Your task to perform on an android device: turn off javascript in the chrome app Image 0: 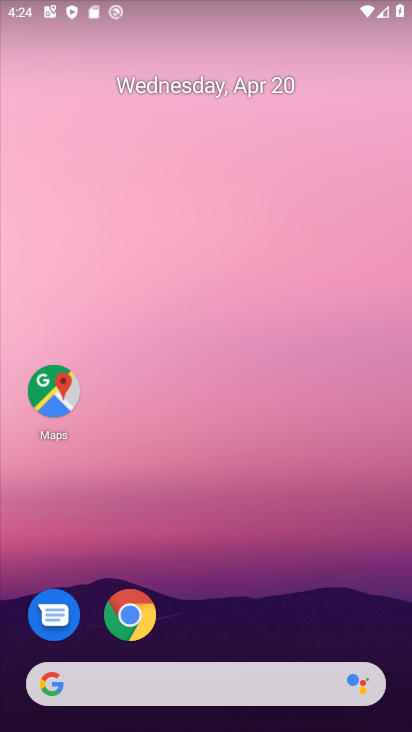
Step 0: click (120, 599)
Your task to perform on an android device: turn off javascript in the chrome app Image 1: 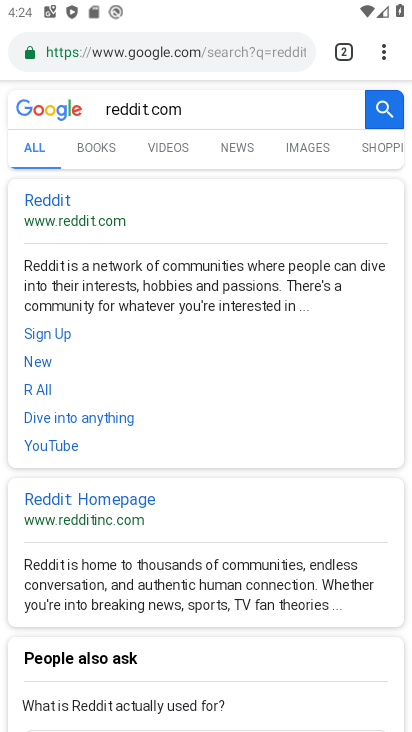
Step 1: click (269, 652)
Your task to perform on an android device: turn off javascript in the chrome app Image 2: 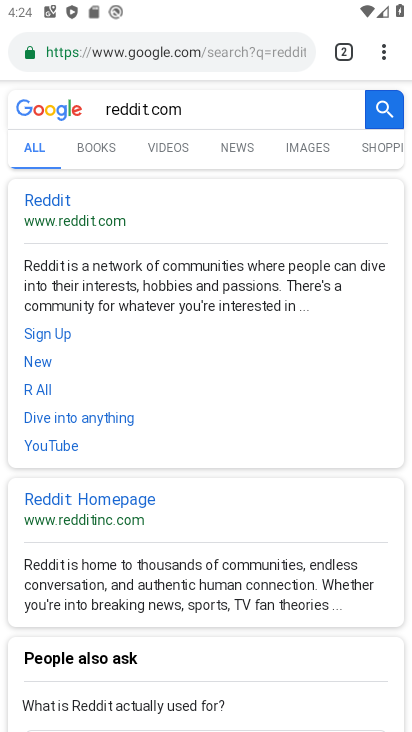
Step 2: click (378, 61)
Your task to perform on an android device: turn off javascript in the chrome app Image 3: 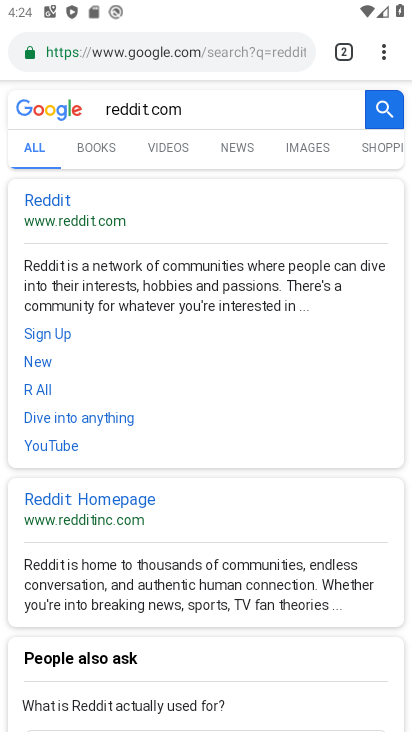
Step 3: click (381, 51)
Your task to perform on an android device: turn off javascript in the chrome app Image 4: 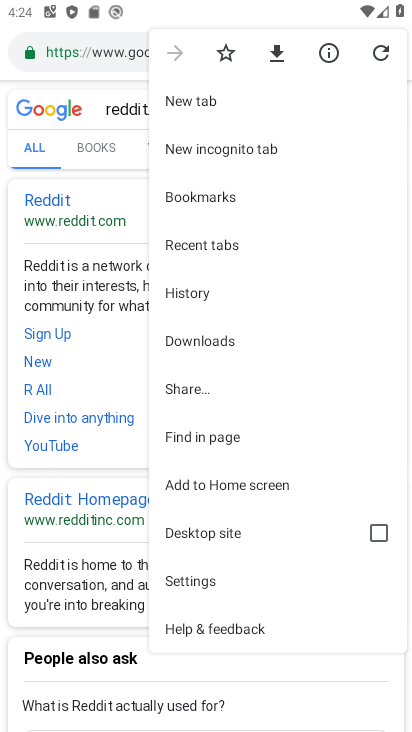
Step 4: click (202, 586)
Your task to perform on an android device: turn off javascript in the chrome app Image 5: 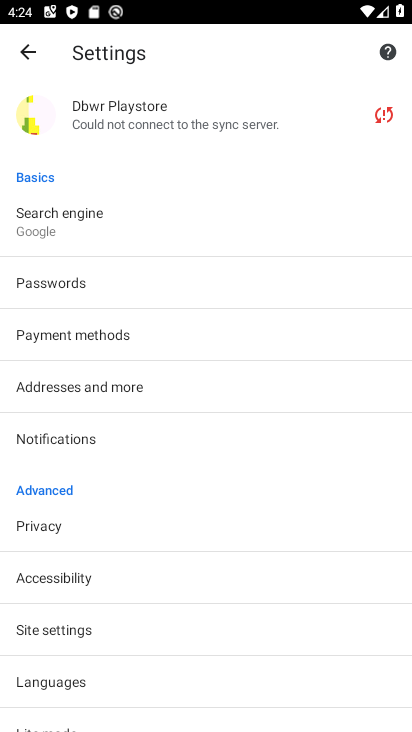
Step 5: drag from (84, 581) to (88, 491)
Your task to perform on an android device: turn off javascript in the chrome app Image 6: 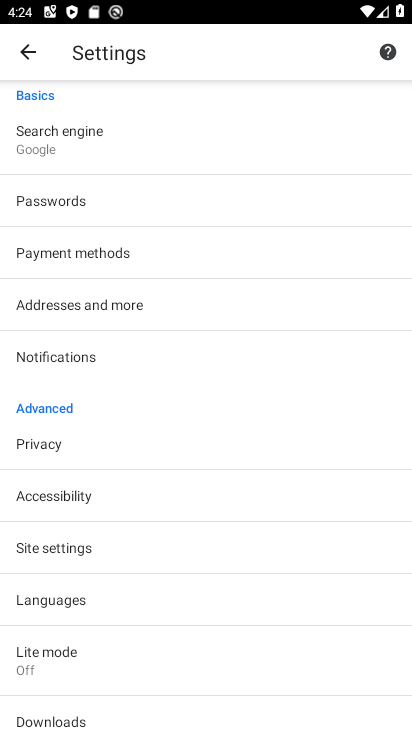
Step 6: click (66, 562)
Your task to perform on an android device: turn off javascript in the chrome app Image 7: 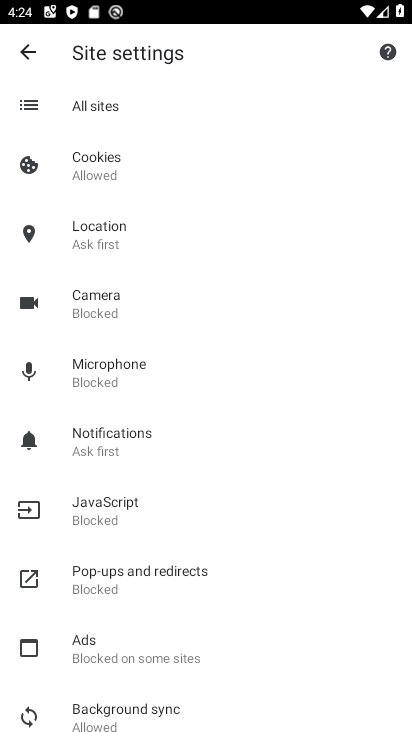
Step 7: click (113, 513)
Your task to perform on an android device: turn off javascript in the chrome app Image 8: 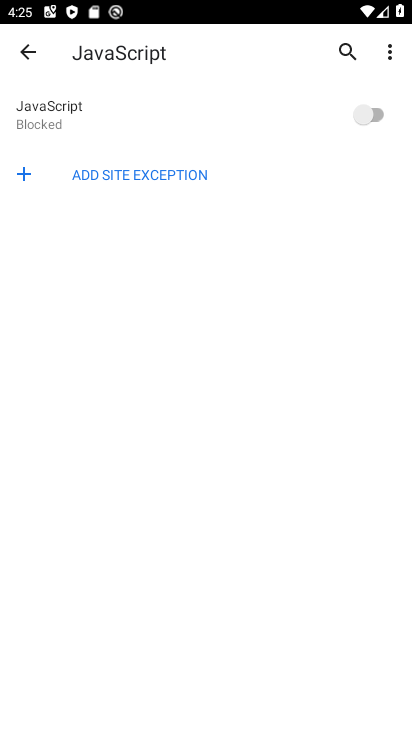
Step 8: task complete